Your task to perform on an android device: change the upload size in google photos Image 0: 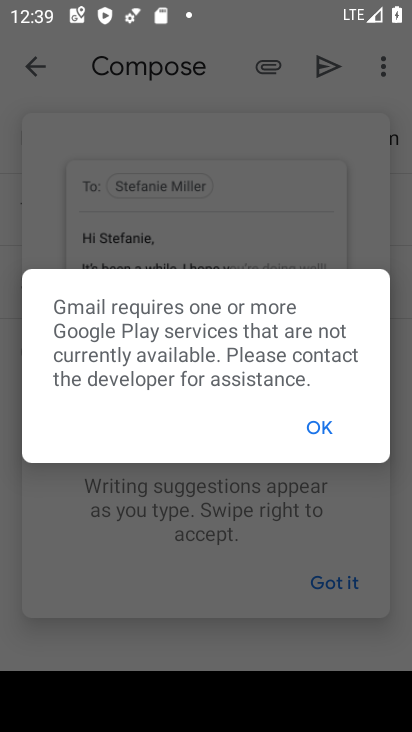
Step 0: press home button
Your task to perform on an android device: change the upload size in google photos Image 1: 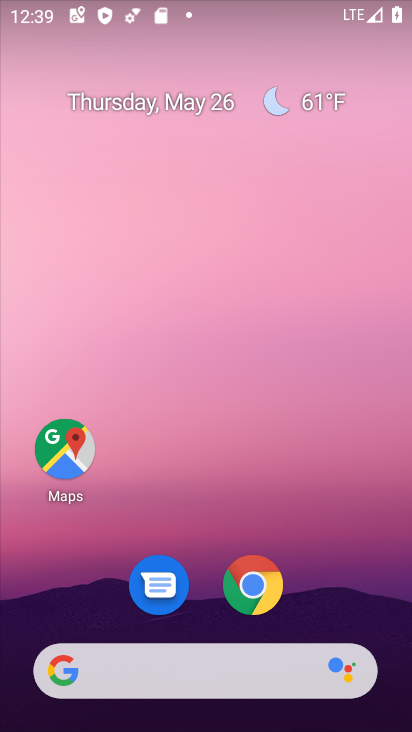
Step 1: click (250, 677)
Your task to perform on an android device: change the upload size in google photos Image 2: 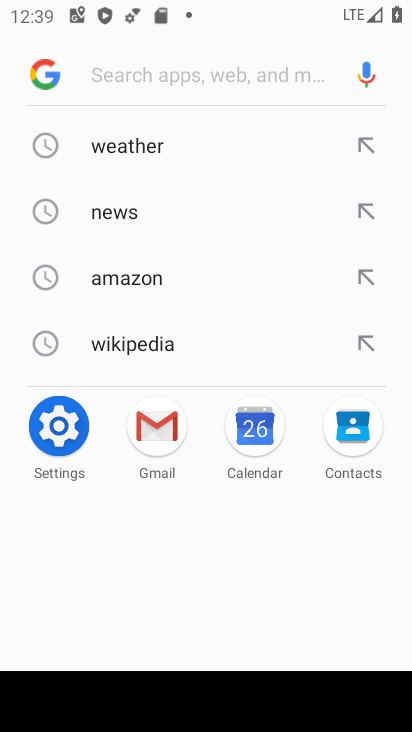
Step 2: press home button
Your task to perform on an android device: change the upload size in google photos Image 3: 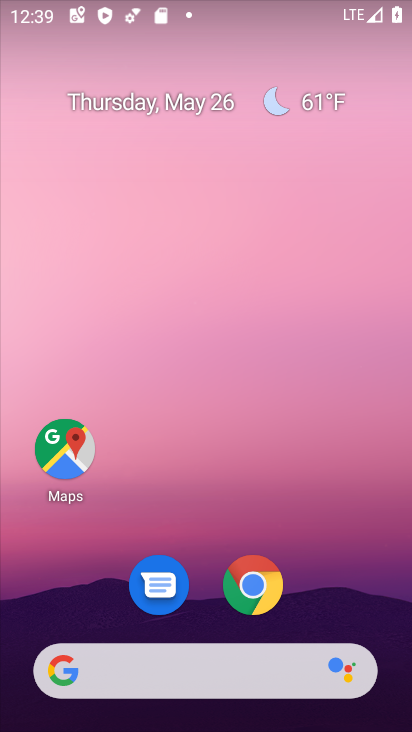
Step 3: drag from (283, 514) to (313, 46)
Your task to perform on an android device: change the upload size in google photos Image 4: 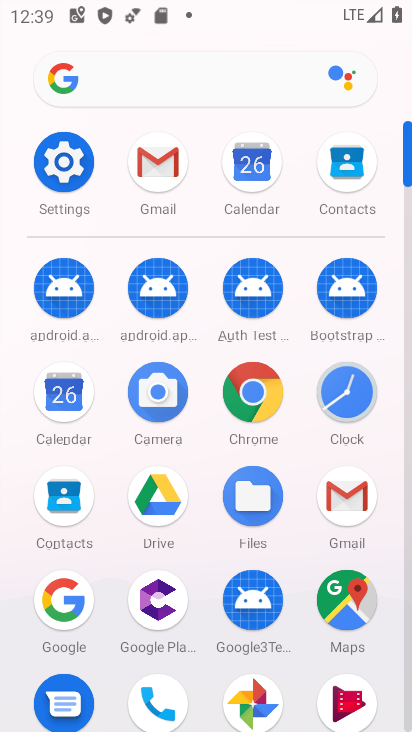
Step 4: drag from (294, 521) to (295, 281)
Your task to perform on an android device: change the upload size in google photos Image 5: 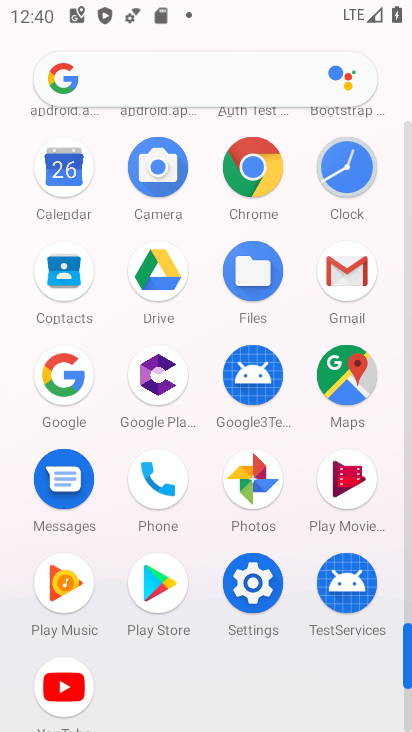
Step 5: click (262, 473)
Your task to perform on an android device: change the upload size in google photos Image 6: 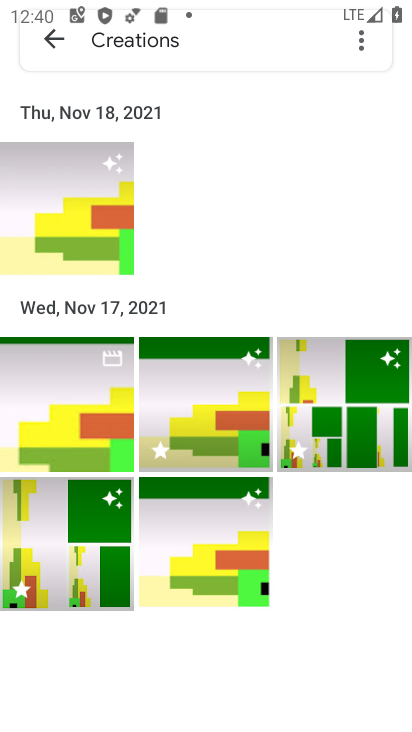
Step 6: click (62, 37)
Your task to perform on an android device: change the upload size in google photos Image 7: 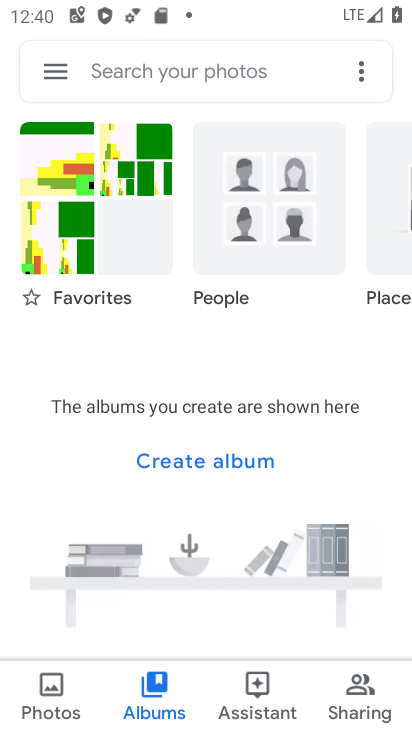
Step 7: click (60, 72)
Your task to perform on an android device: change the upload size in google photos Image 8: 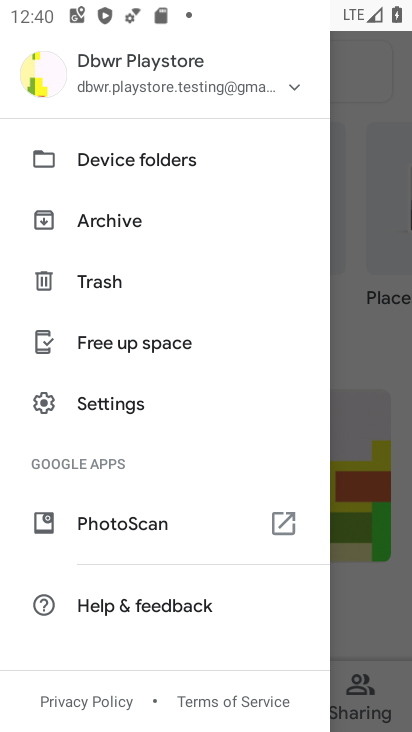
Step 8: click (103, 395)
Your task to perform on an android device: change the upload size in google photos Image 9: 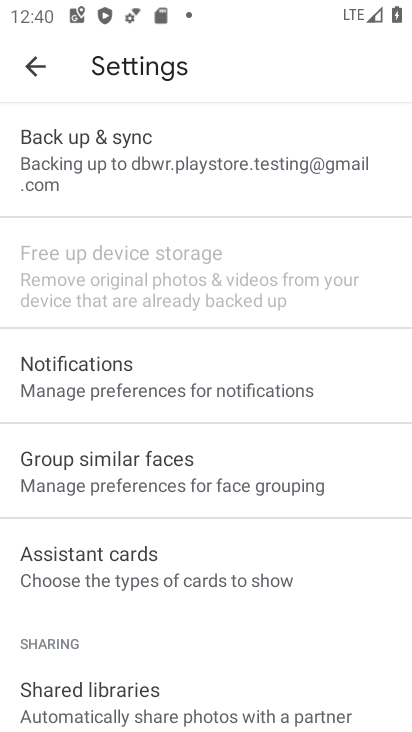
Step 9: click (245, 160)
Your task to perform on an android device: change the upload size in google photos Image 10: 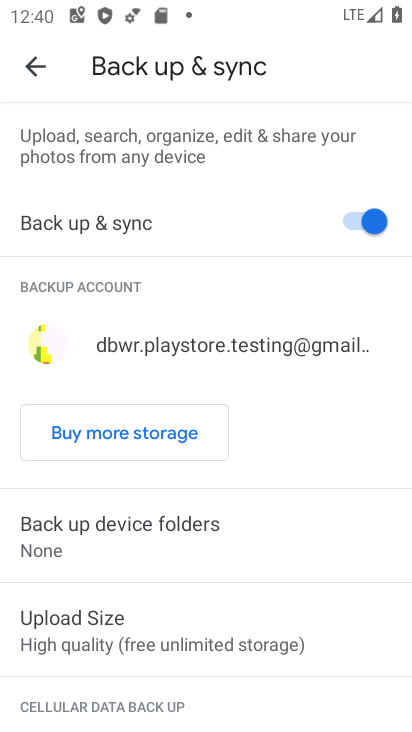
Step 10: click (209, 631)
Your task to perform on an android device: change the upload size in google photos Image 11: 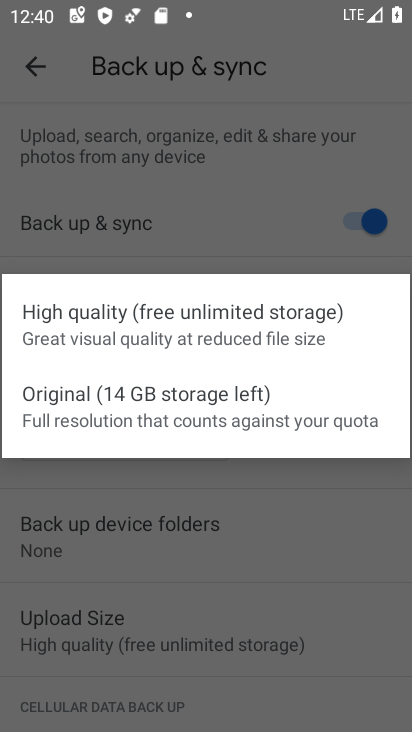
Step 11: click (198, 408)
Your task to perform on an android device: change the upload size in google photos Image 12: 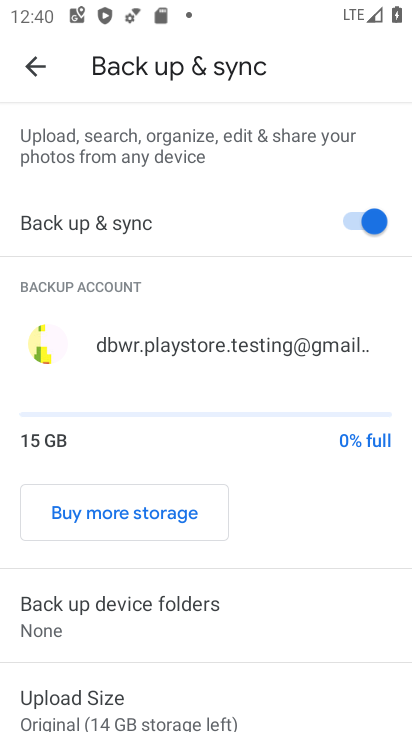
Step 12: task complete